Your task to perform on an android device: search for starred emails in the gmail app Image 0: 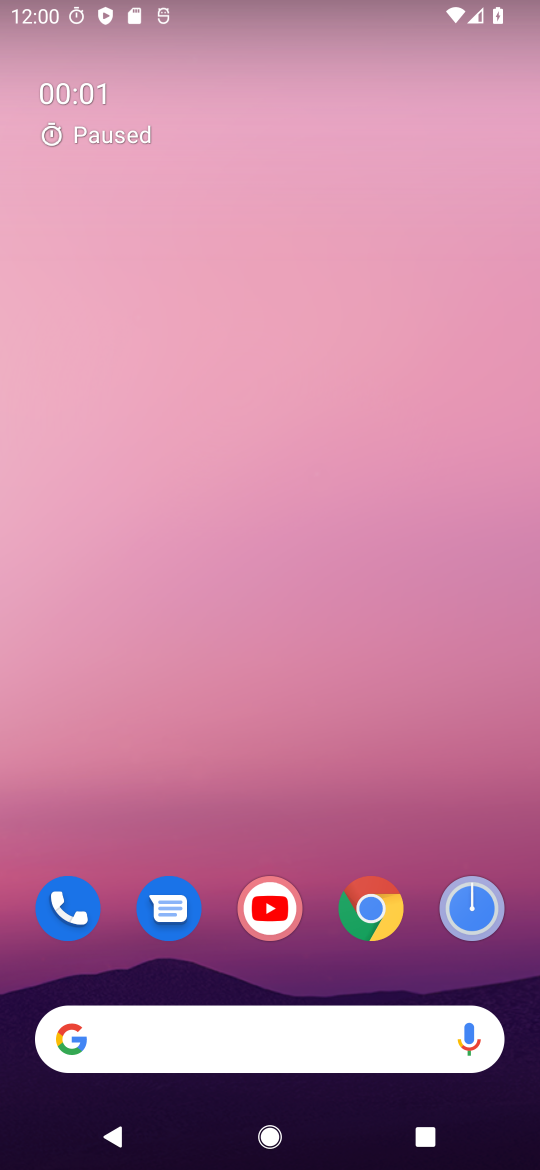
Step 0: drag from (422, 946) to (413, 185)
Your task to perform on an android device: search for starred emails in the gmail app Image 1: 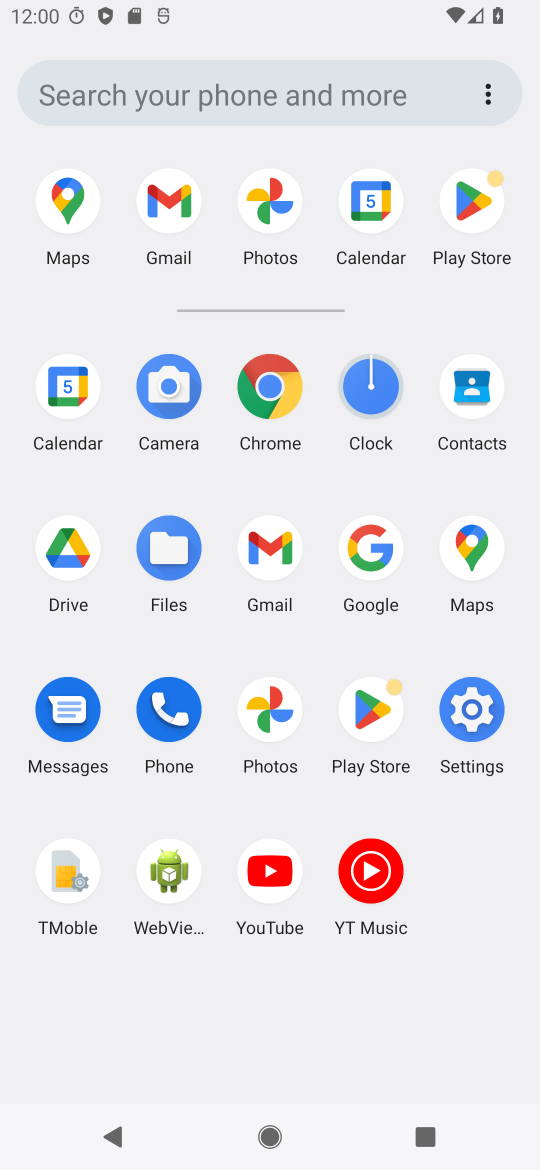
Step 1: click (285, 536)
Your task to perform on an android device: search for starred emails in the gmail app Image 2: 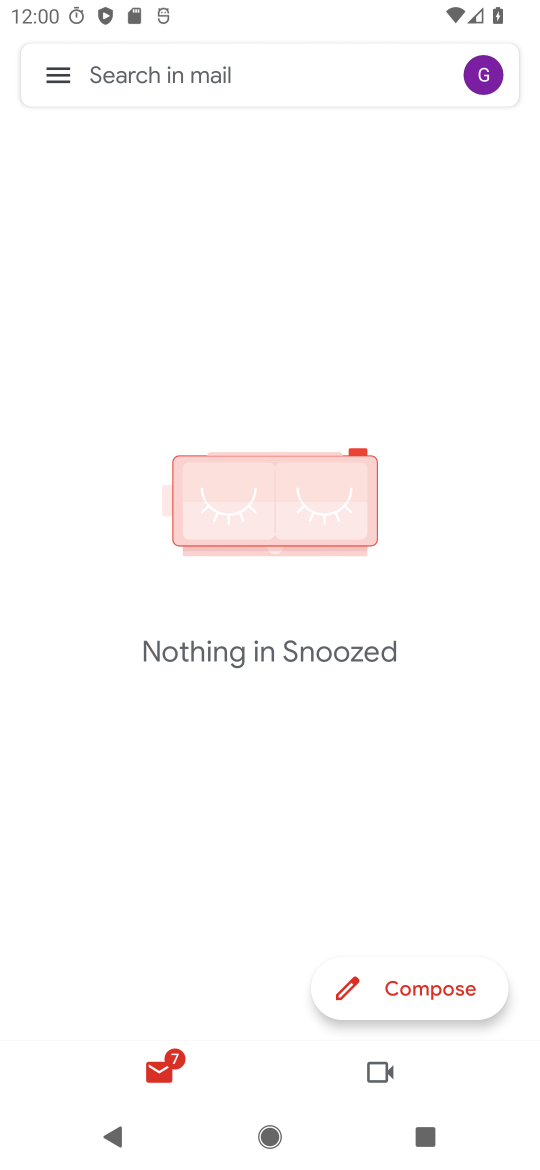
Step 2: click (67, 67)
Your task to perform on an android device: search for starred emails in the gmail app Image 3: 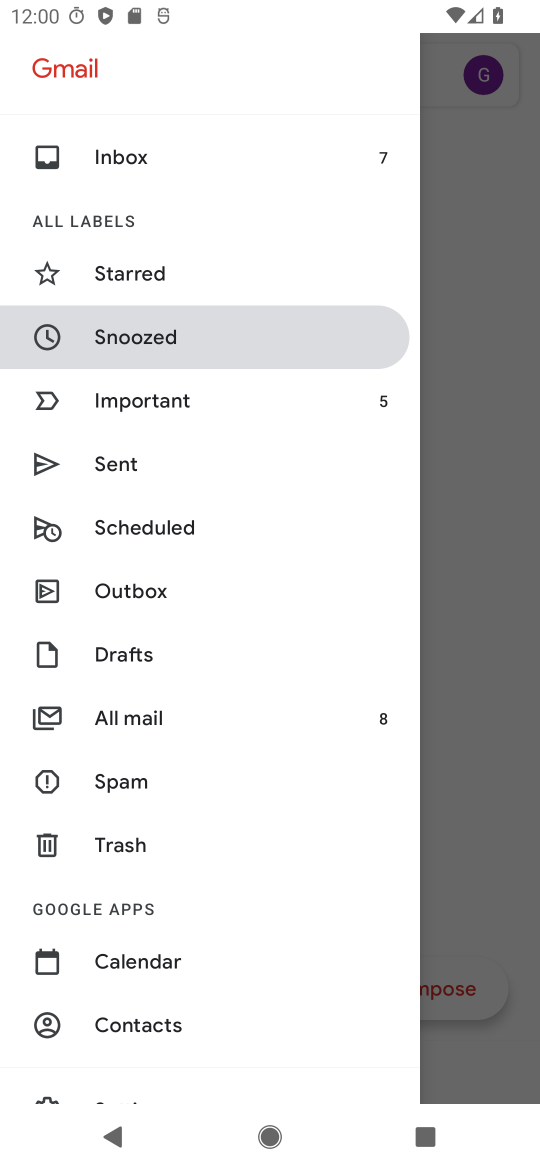
Step 3: drag from (148, 1037) to (139, 512)
Your task to perform on an android device: search for starred emails in the gmail app Image 4: 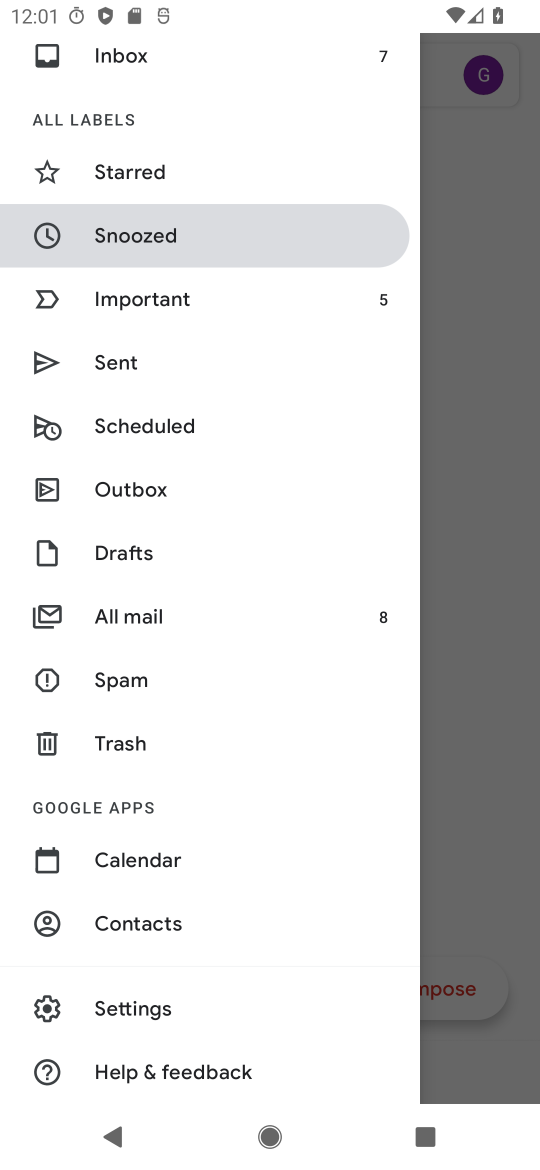
Step 4: click (134, 177)
Your task to perform on an android device: search for starred emails in the gmail app Image 5: 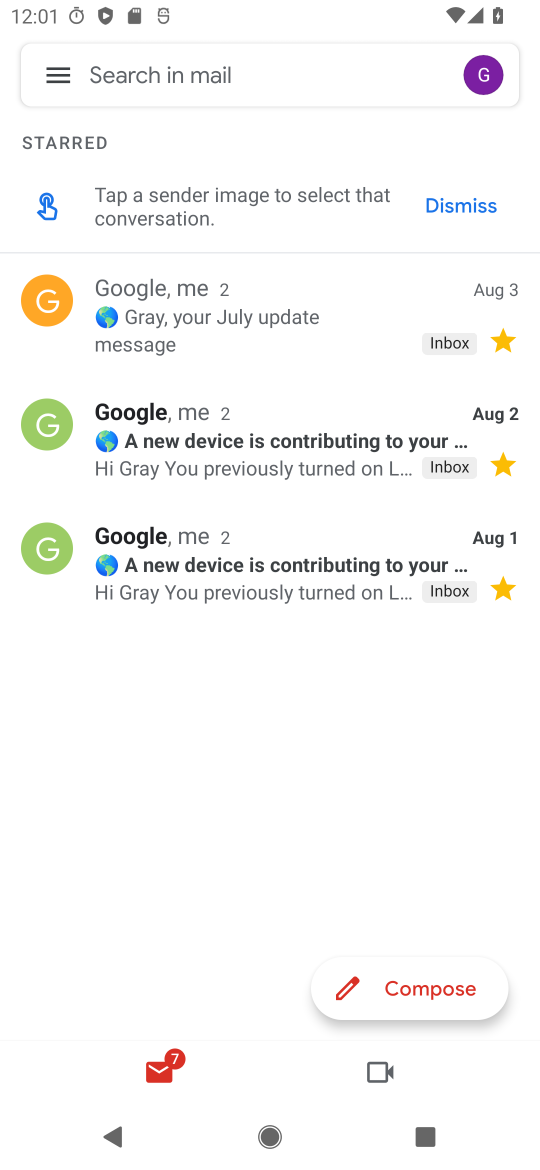
Step 5: task complete